Your task to perform on an android device: Go to Yahoo.com Image 0: 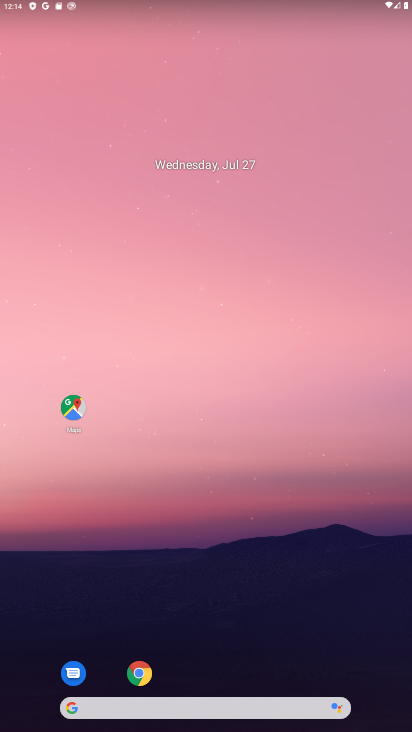
Step 0: click (135, 681)
Your task to perform on an android device: Go to Yahoo.com Image 1: 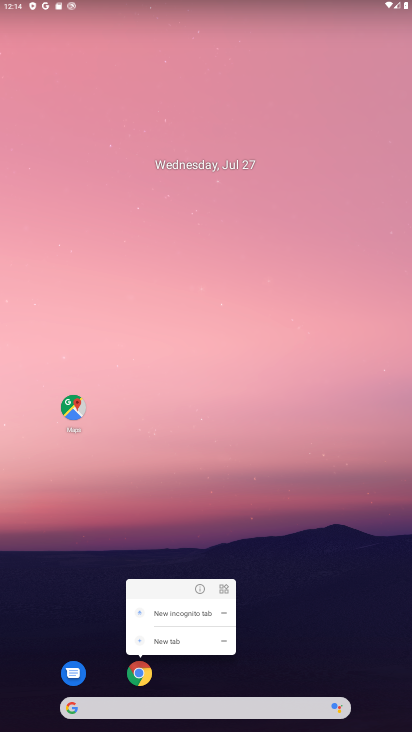
Step 1: click (135, 681)
Your task to perform on an android device: Go to Yahoo.com Image 2: 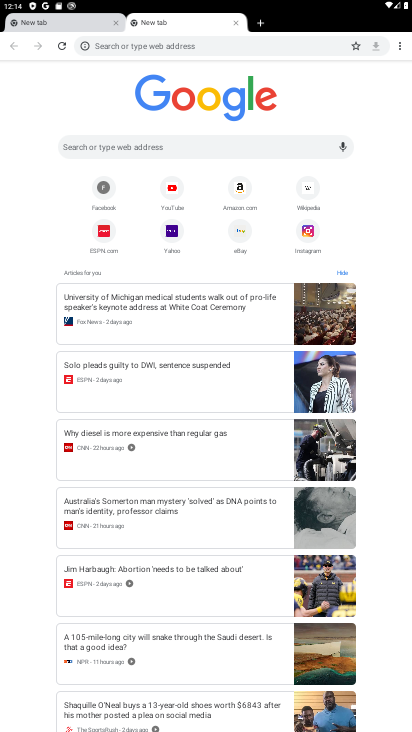
Step 2: click (170, 235)
Your task to perform on an android device: Go to Yahoo.com Image 3: 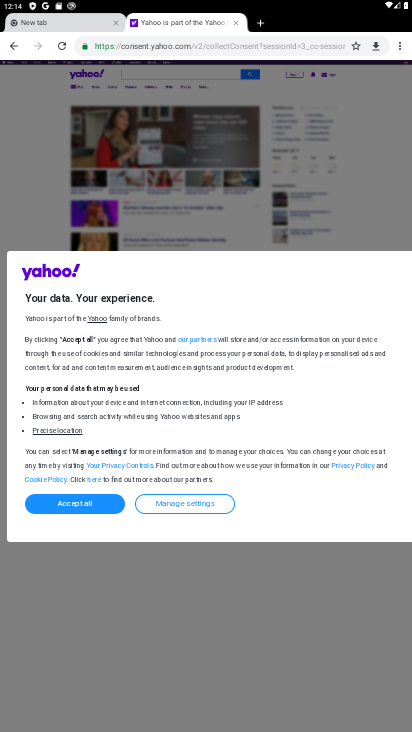
Step 3: click (73, 513)
Your task to perform on an android device: Go to Yahoo.com Image 4: 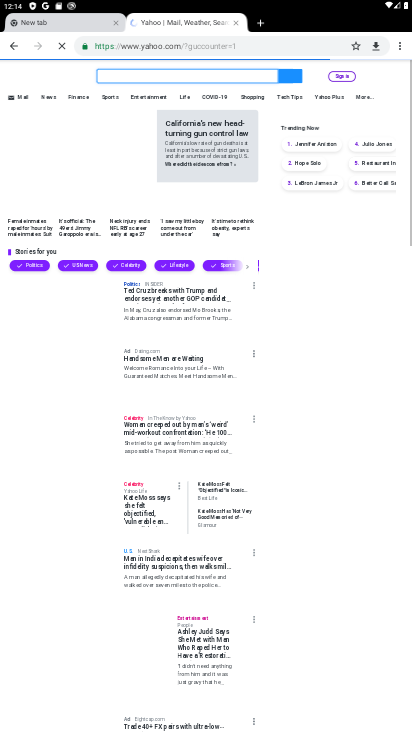
Step 4: task complete